Your task to perform on an android device: Clear the shopping cart on newegg. Image 0: 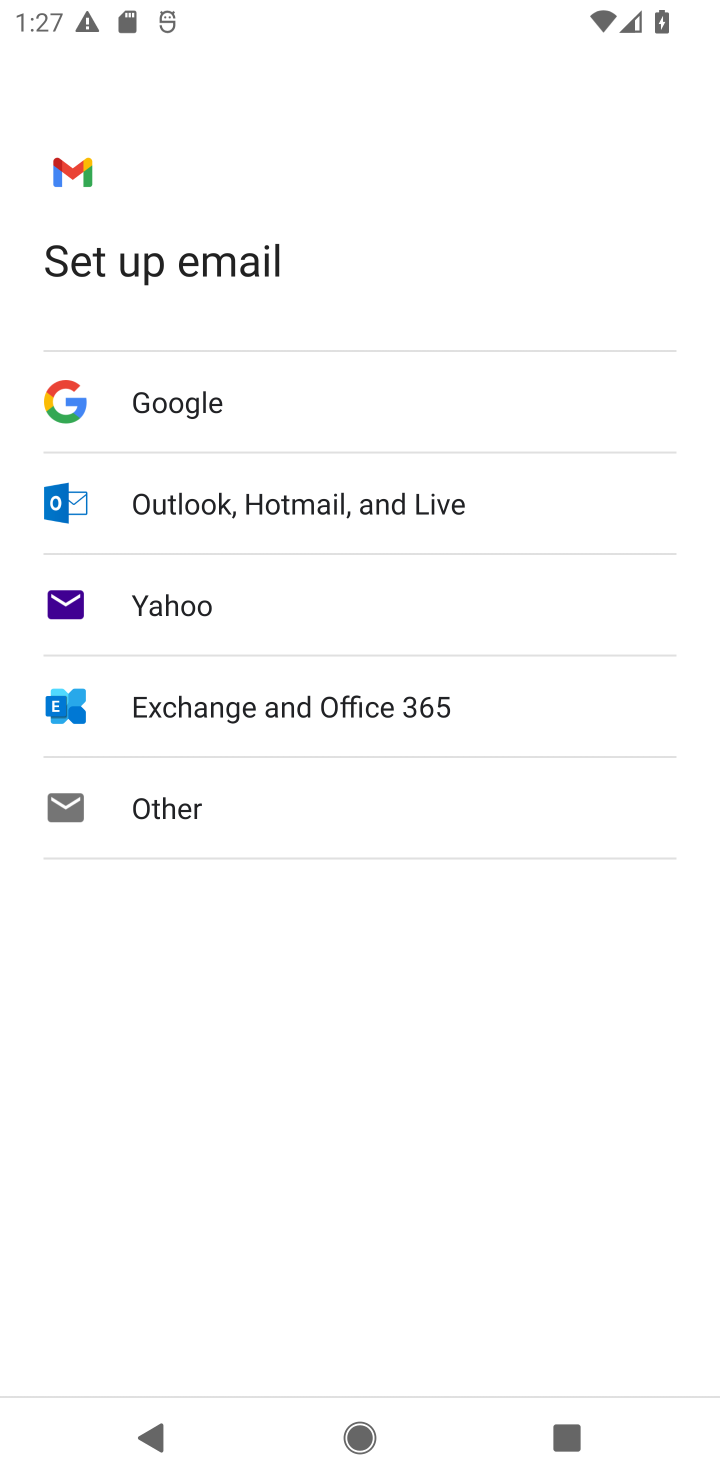
Step 0: press home button
Your task to perform on an android device: Clear the shopping cart on newegg. Image 1: 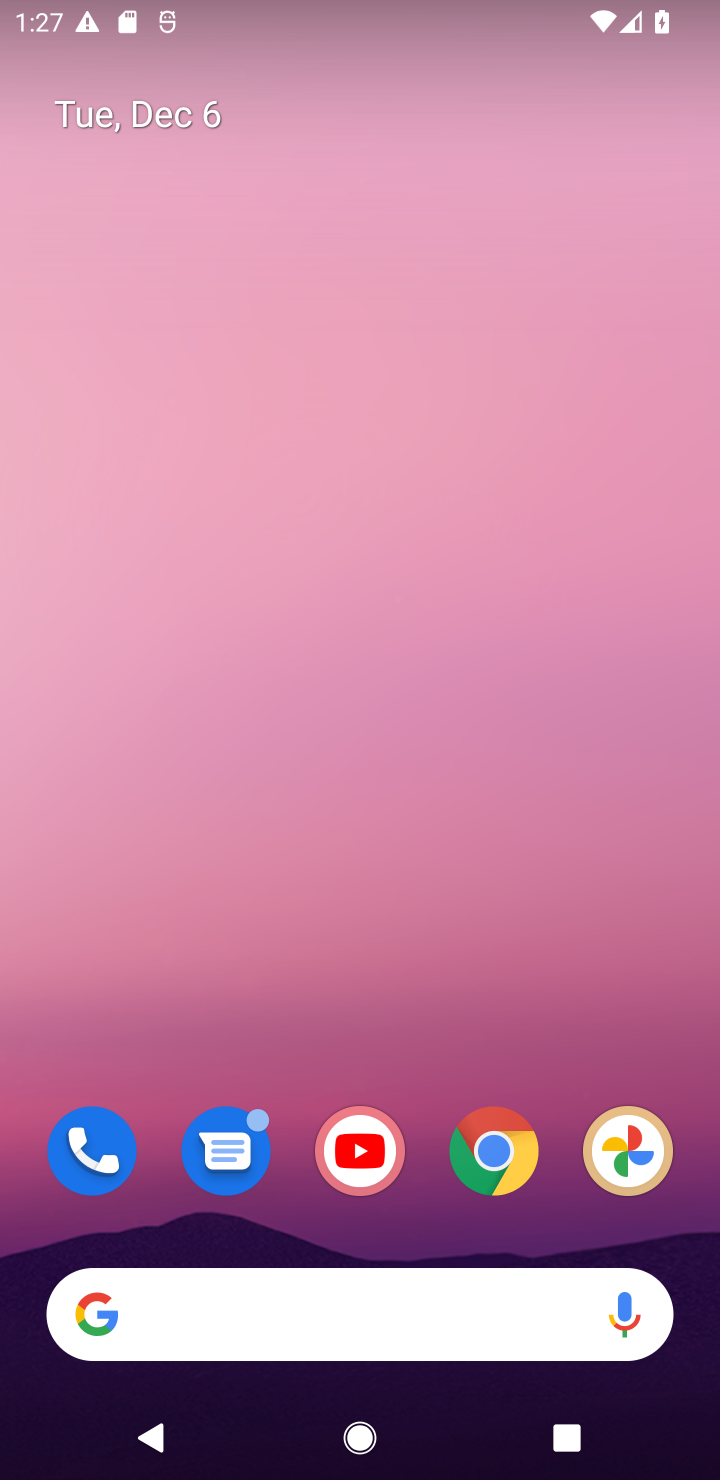
Step 1: click (499, 1162)
Your task to perform on an android device: Clear the shopping cart on newegg. Image 2: 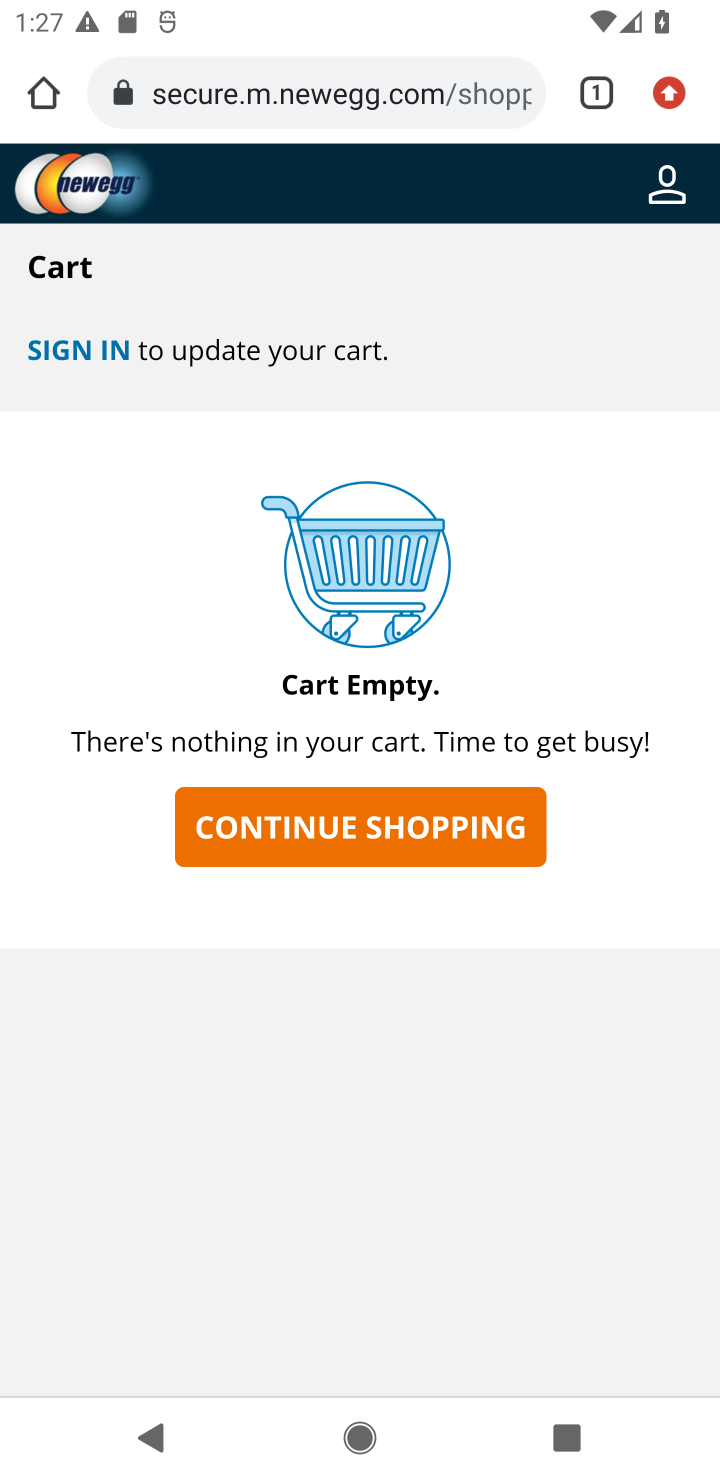
Step 2: task complete